Your task to perform on an android device: Go to ESPN.com Image 0: 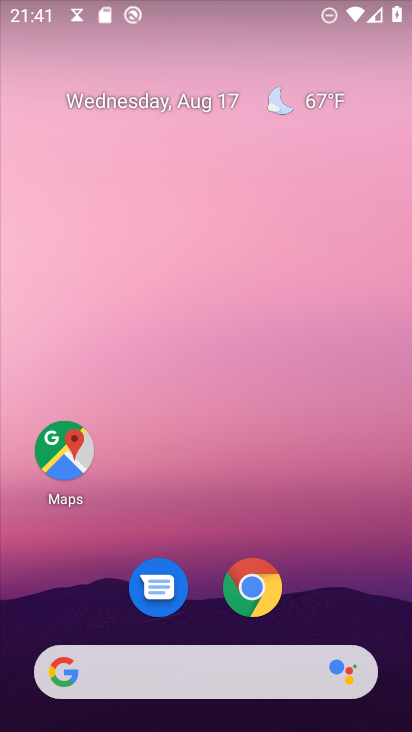
Step 0: click (116, 676)
Your task to perform on an android device: Go to ESPN.com Image 1: 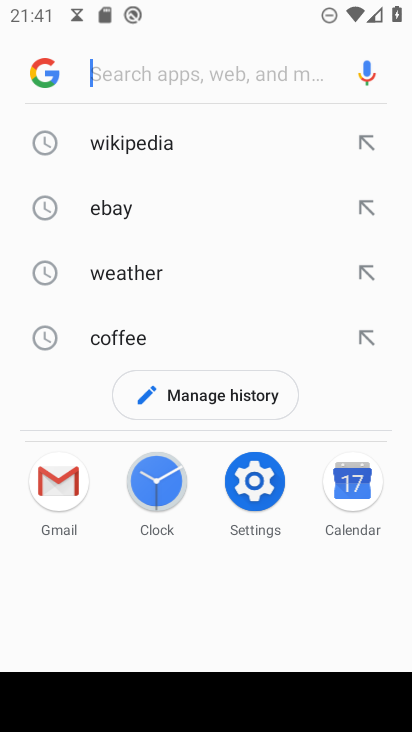
Step 1: type "ESPN.com"
Your task to perform on an android device: Go to ESPN.com Image 2: 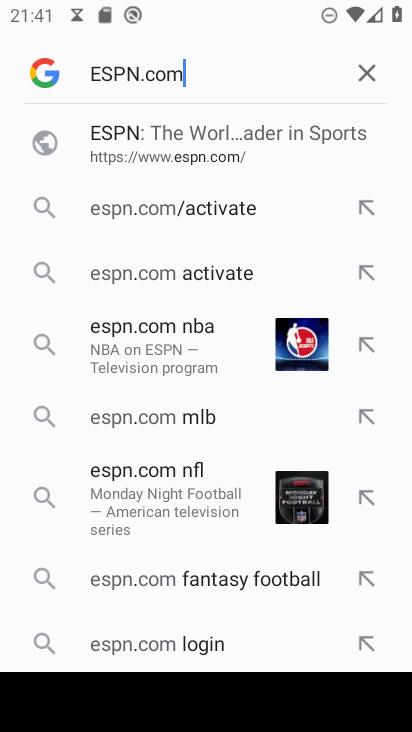
Step 2: click (101, 134)
Your task to perform on an android device: Go to ESPN.com Image 3: 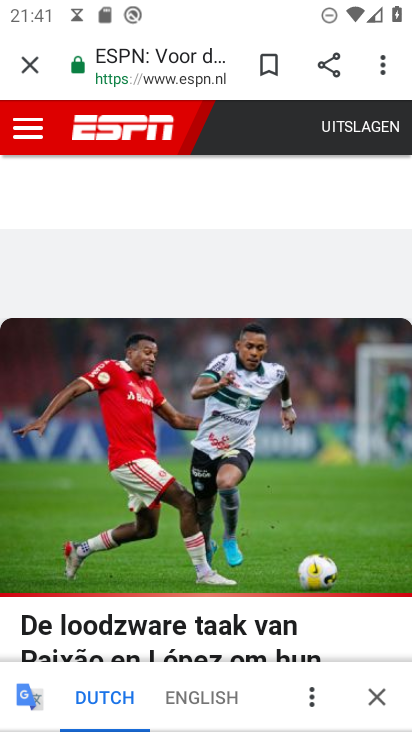
Step 3: task complete